Your task to perform on an android device: What's the weather today? Image 0: 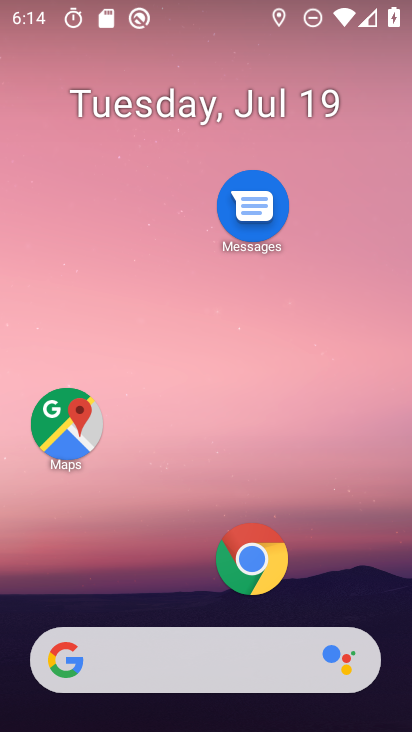
Step 0: click (157, 668)
Your task to perform on an android device: What's the weather today? Image 1: 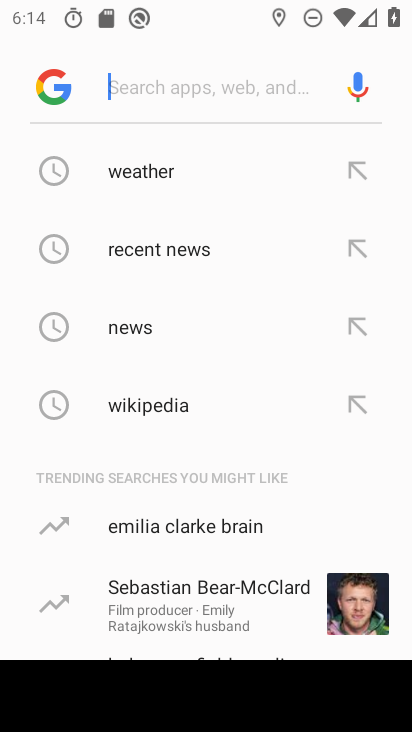
Step 1: click (170, 172)
Your task to perform on an android device: What's the weather today? Image 2: 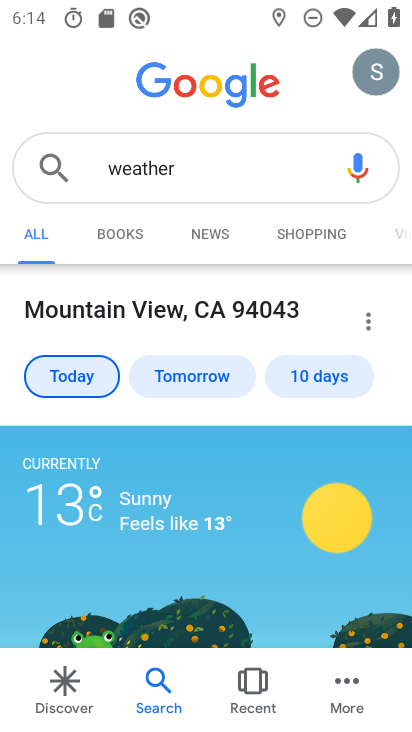
Step 2: task complete